Your task to perform on an android device: Search for sushi restaurants on Maps Image 0: 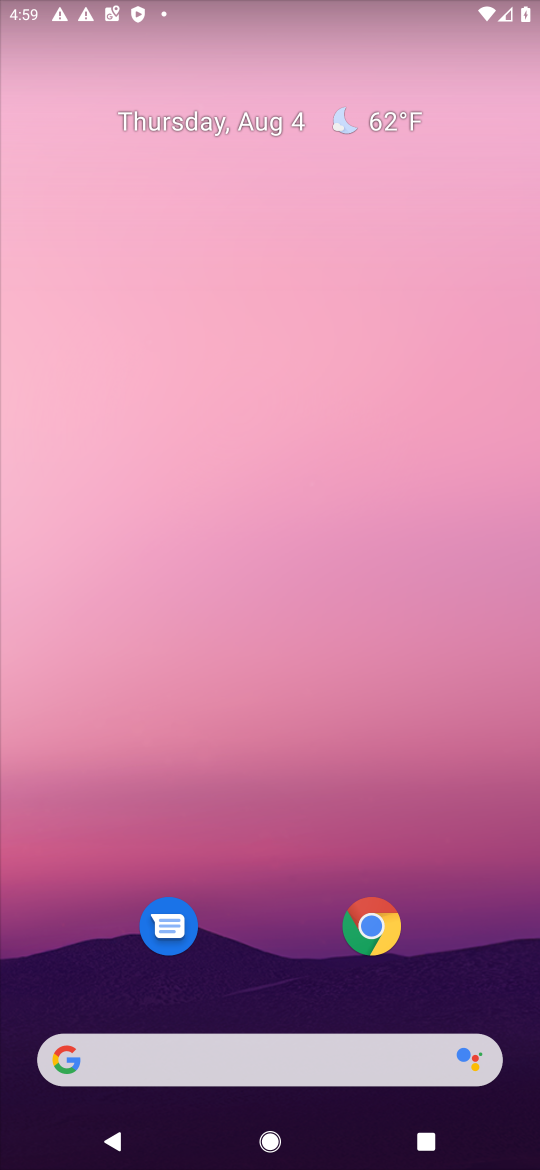
Step 0: press home button
Your task to perform on an android device: Search for sushi restaurants on Maps Image 1: 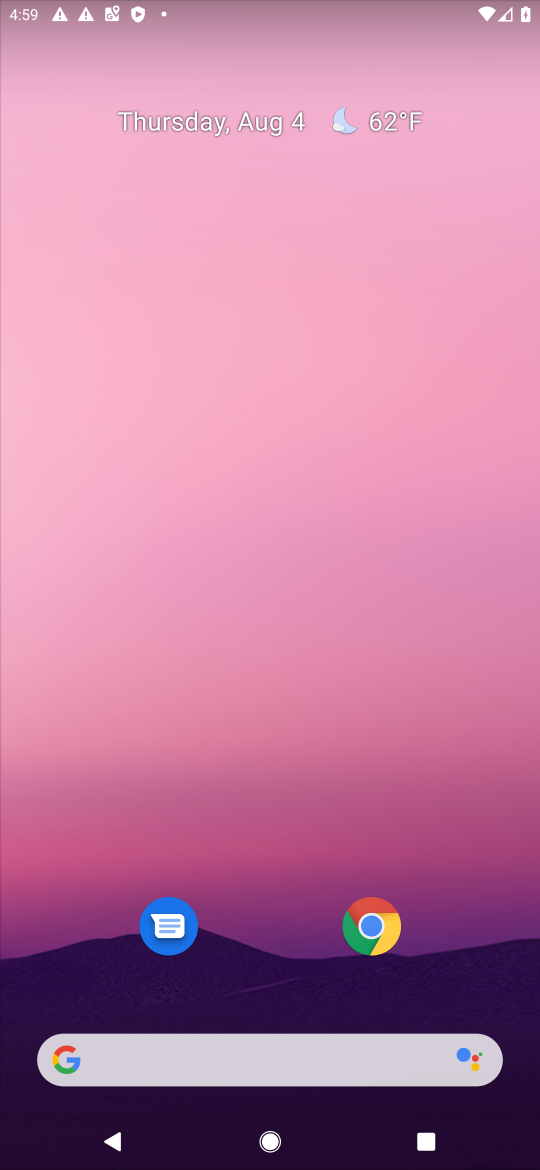
Step 1: drag from (337, 753) to (536, 13)
Your task to perform on an android device: Search for sushi restaurants on Maps Image 2: 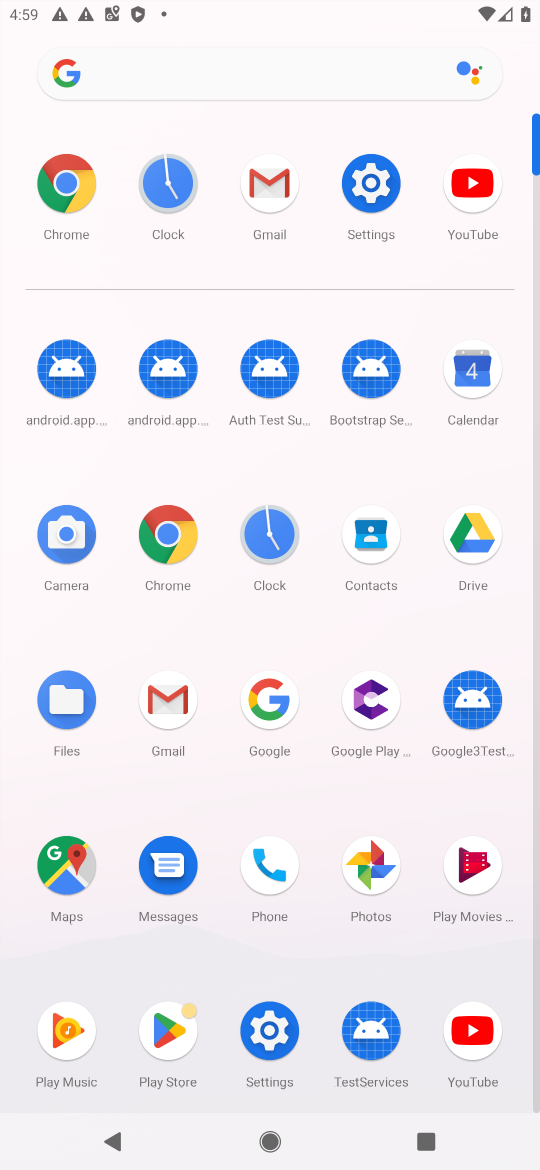
Step 2: click (83, 875)
Your task to perform on an android device: Search for sushi restaurants on Maps Image 3: 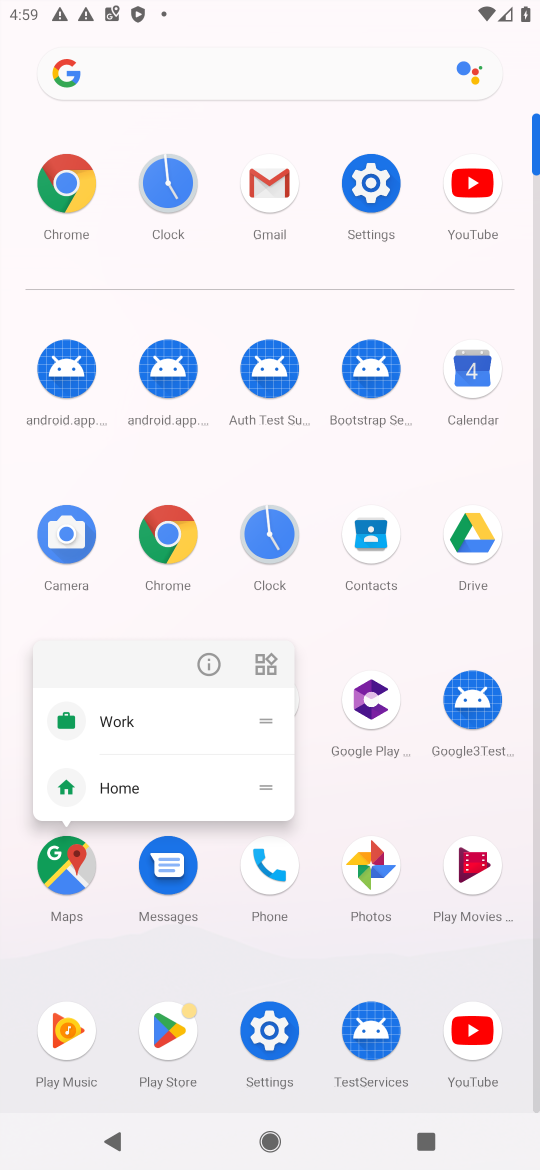
Step 3: click (63, 864)
Your task to perform on an android device: Search for sushi restaurants on Maps Image 4: 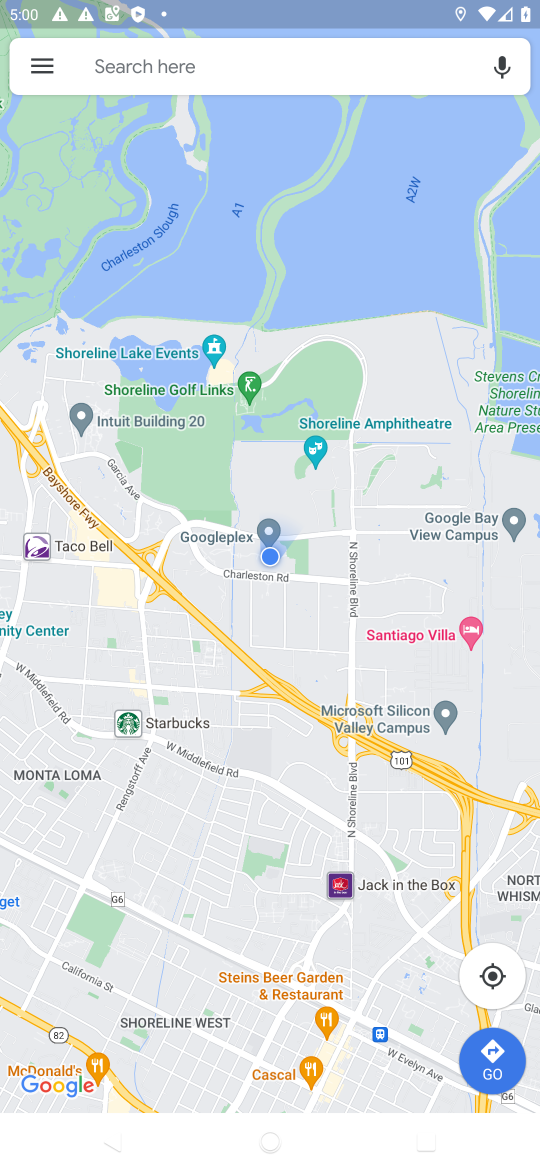
Step 4: click (207, 67)
Your task to perform on an android device: Search for sushi restaurants on Maps Image 5: 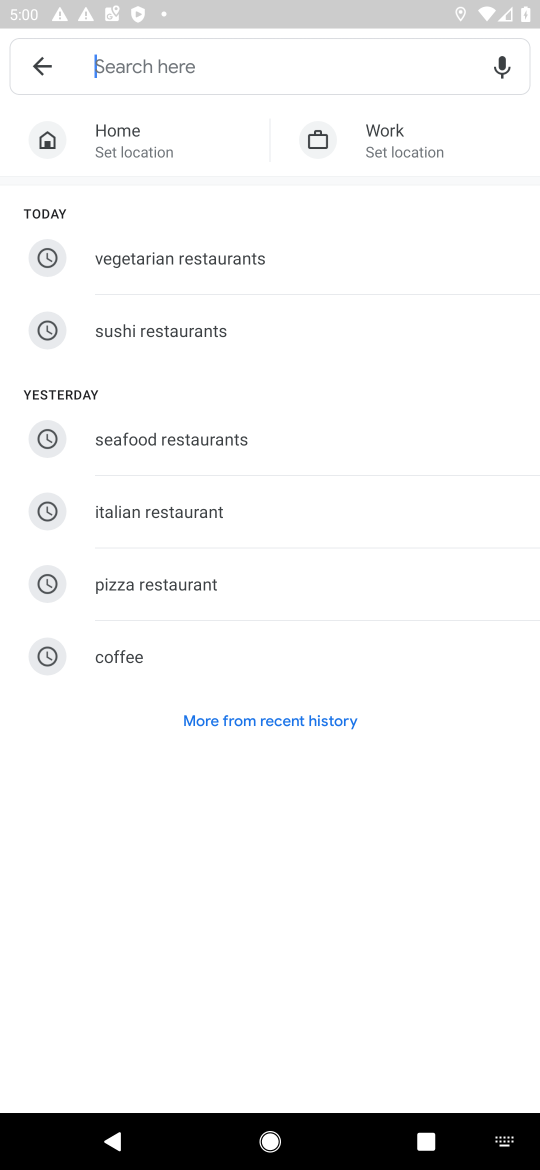
Step 5: click (189, 336)
Your task to perform on an android device: Search for sushi restaurants on Maps Image 6: 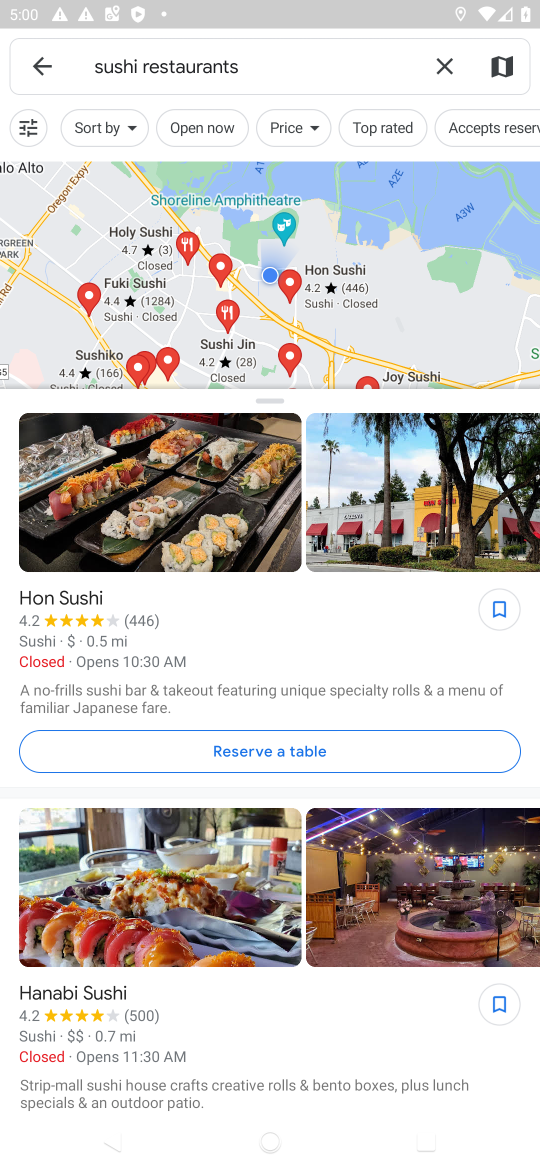
Step 6: task complete